Your task to perform on an android device: Go to privacy settings Image 0: 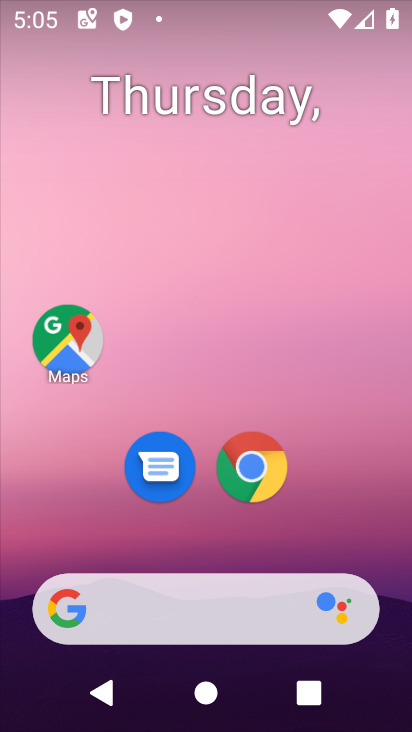
Step 0: drag from (401, 568) to (388, 88)
Your task to perform on an android device: Go to privacy settings Image 1: 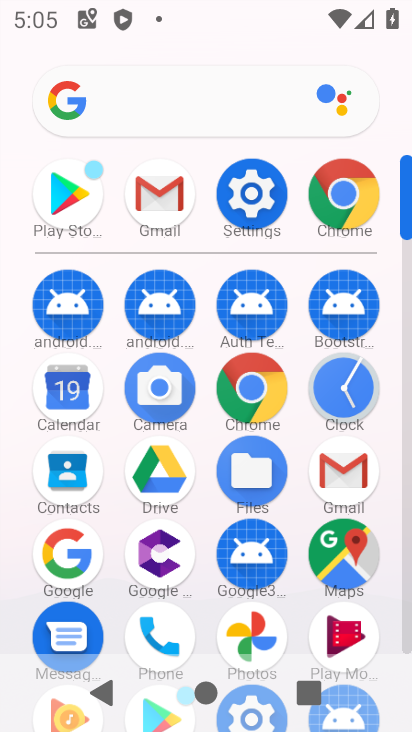
Step 1: click (258, 223)
Your task to perform on an android device: Go to privacy settings Image 2: 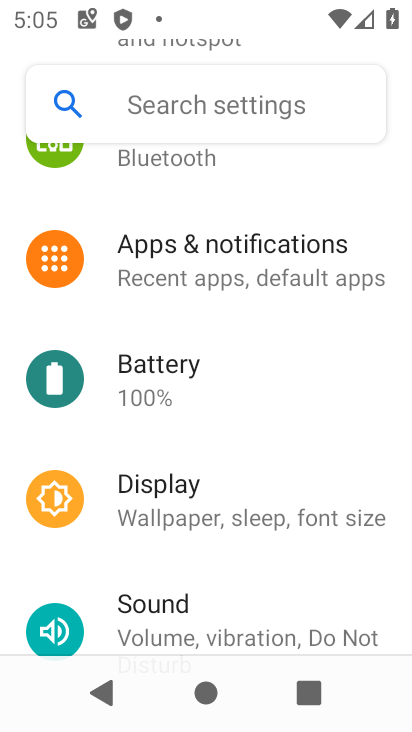
Step 2: drag from (263, 626) to (195, 181)
Your task to perform on an android device: Go to privacy settings Image 3: 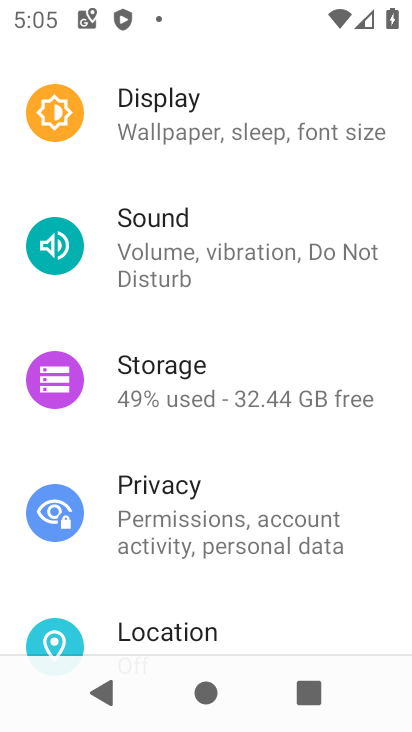
Step 3: click (280, 511)
Your task to perform on an android device: Go to privacy settings Image 4: 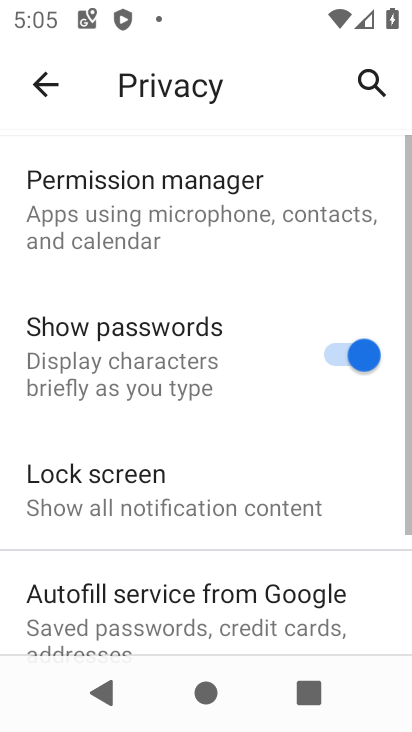
Step 4: task complete